Your task to perform on an android device: toggle notifications settings in the gmail app Image 0: 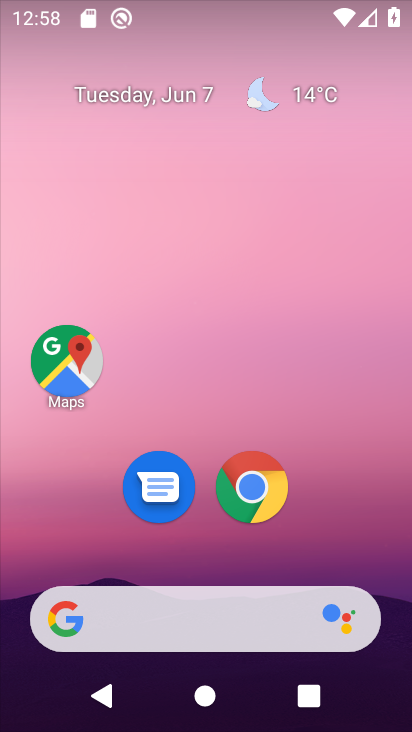
Step 0: drag from (192, 557) to (205, 0)
Your task to perform on an android device: toggle notifications settings in the gmail app Image 1: 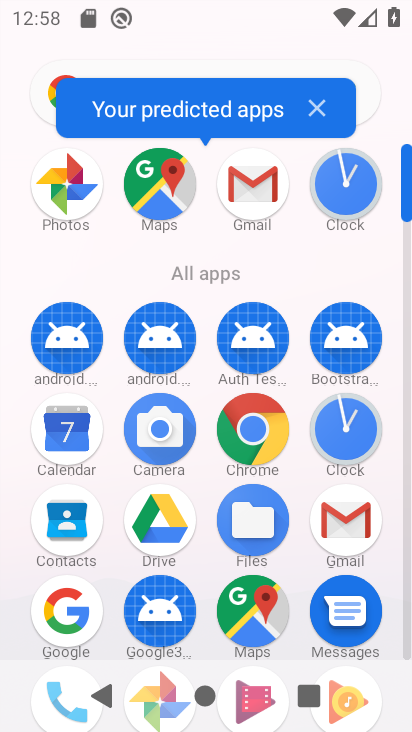
Step 1: click (354, 521)
Your task to perform on an android device: toggle notifications settings in the gmail app Image 2: 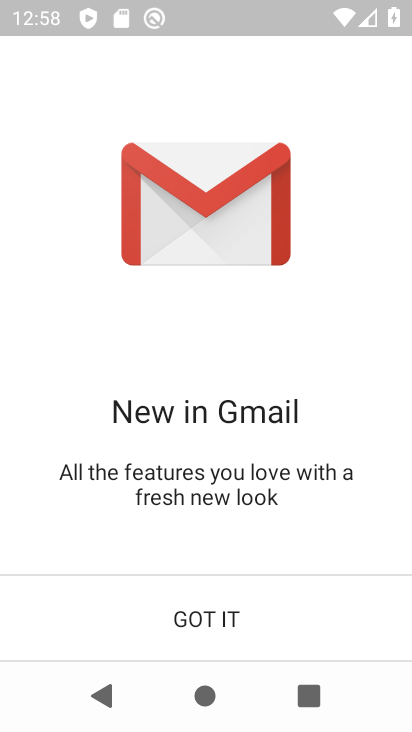
Step 2: click (280, 621)
Your task to perform on an android device: toggle notifications settings in the gmail app Image 3: 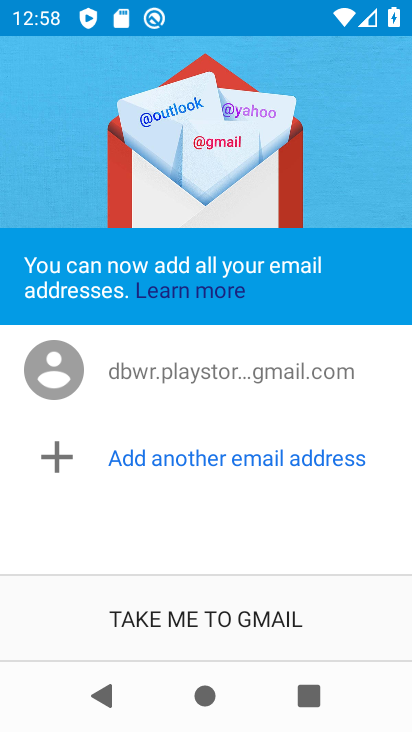
Step 3: click (279, 621)
Your task to perform on an android device: toggle notifications settings in the gmail app Image 4: 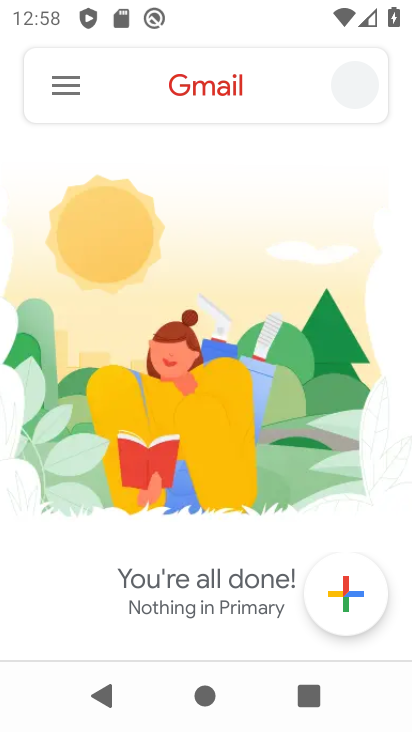
Step 4: click (66, 90)
Your task to perform on an android device: toggle notifications settings in the gmail app Image 5: 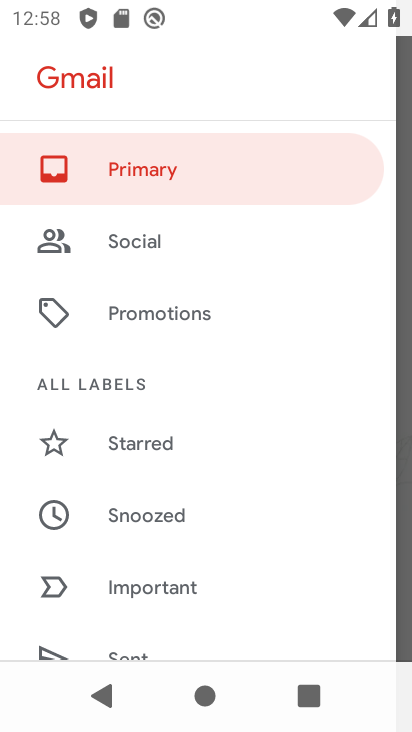
Step 5: drag from (107, 548) to (217, 134)
Your task to perform on an android device: toggle notifications settings in the gmail app Image 6: 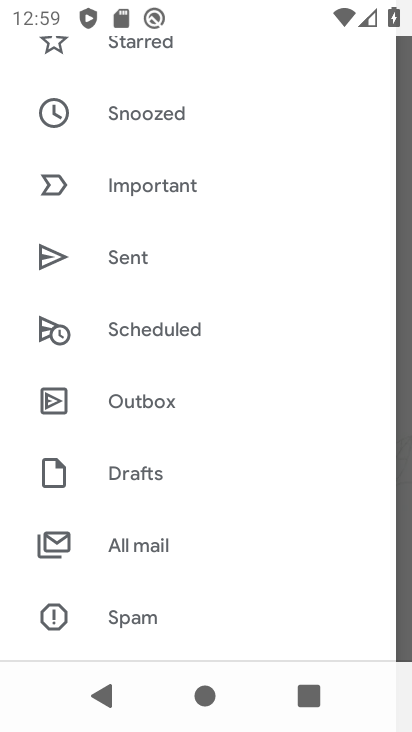
Step 6: drag from (178, 522) to (260, 123)
Your task to perform on an android device: toggle notifications settings in the gmail app Image 7: 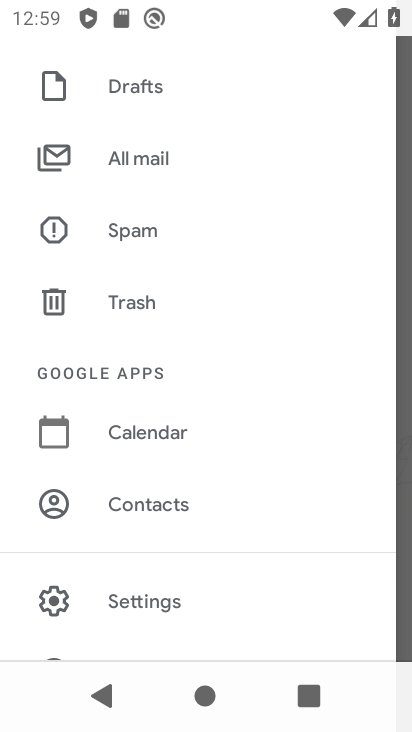
Step 7: click (151, 602)
Your task to perform on an android device: toggle notifications settings in the gmail app Image 8: 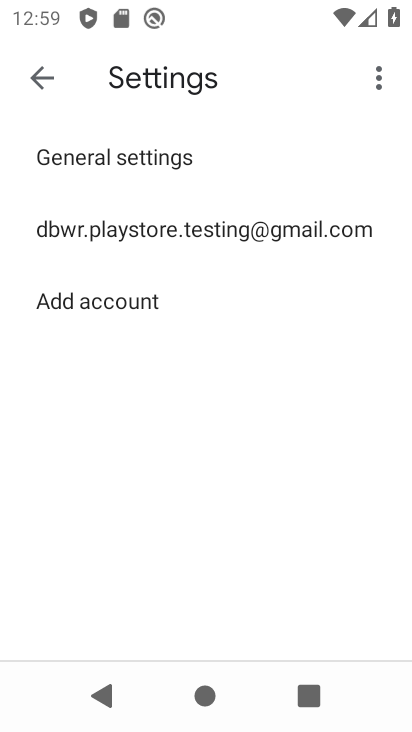
Step 8: click (115, 159)
Your task to perform on an android device: toggle notifications settings in the gmail app Image 9: 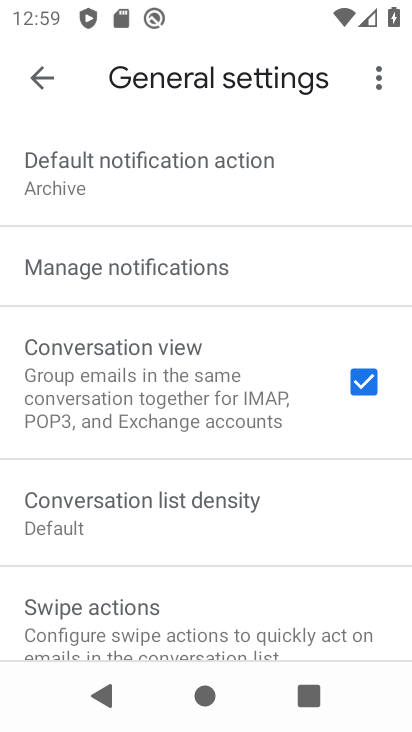
Step 9: click (138, 266)
Your task to perform on an android device: toggle notifications settings in the gmail app Image 10: 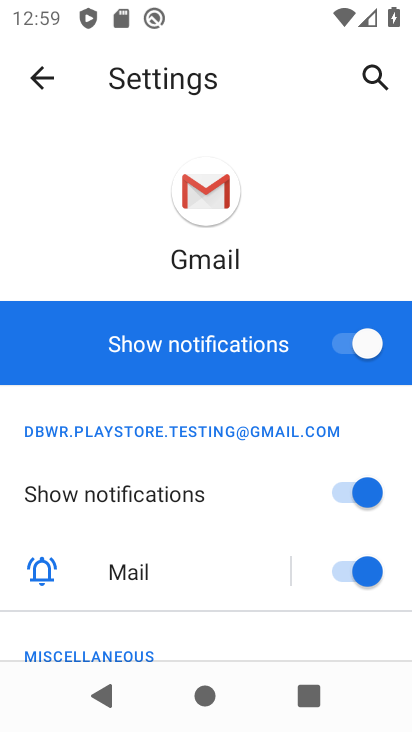
Step 10: click (317, 332)
Your task to perform on an android device: toggle notifications settings in the gmail app Image 11: 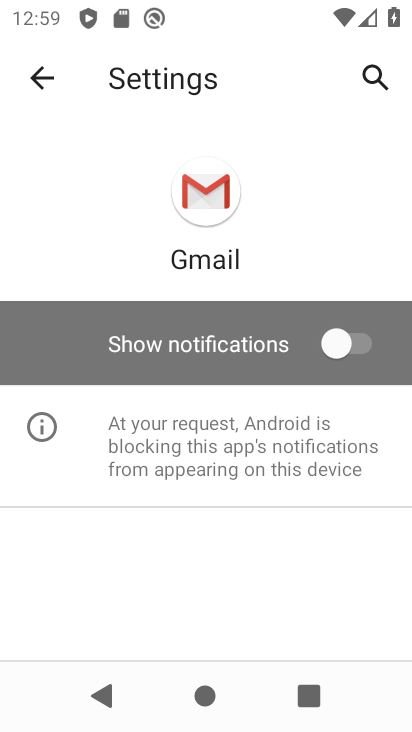
Step 11: task complete